Your task to perform on an android device: change keyboard looks Image 0: 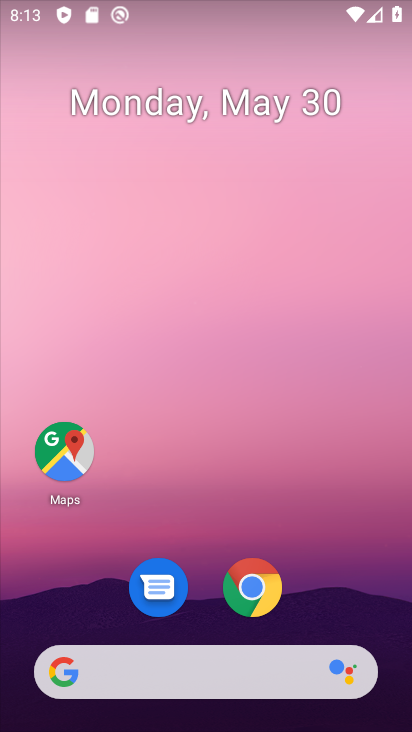
Step 0: drag from (196, 561) to (236, 2)
Your task to perform on an android device: change keyboard looks Image 1: 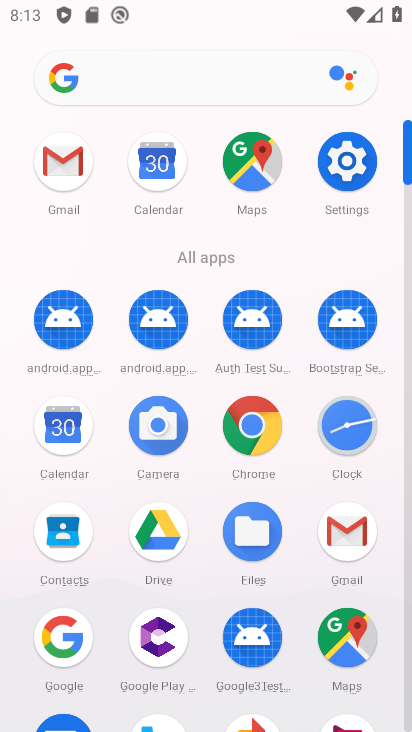
Step 1: click (350, 188)
Your task to perform on an android device: change keyboard looks Image 2: 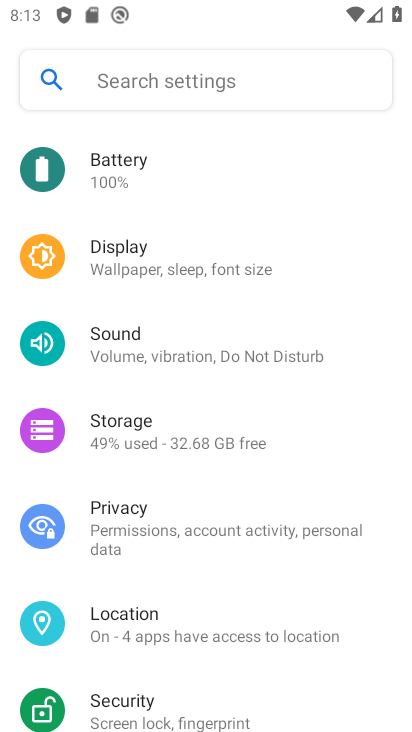
Step 2: drag from (224, 584) to (248, 173)
Your task to perform on an android device: change keyboard looks Image 3: 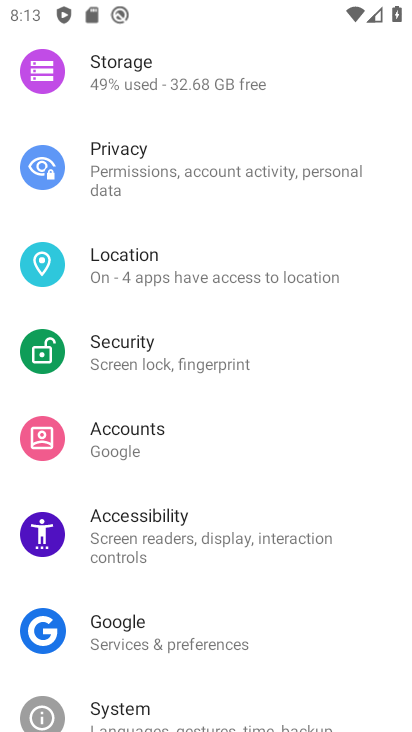
Step 3: drag from (175, 690) to (195, 525)
Your task to perform on an android device: change keyboard looks Image 4: 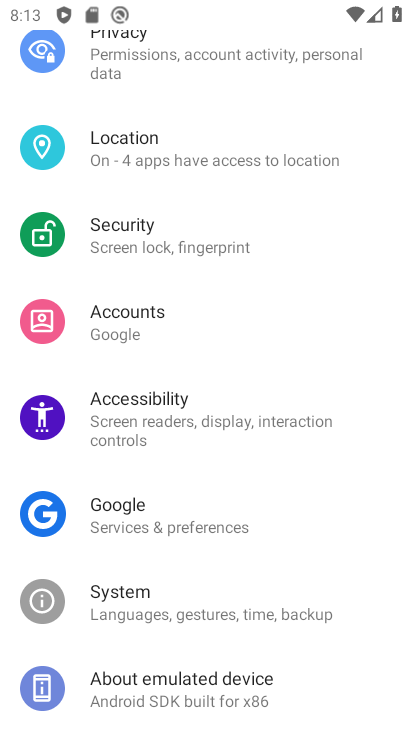
Step 4: click (162, 592)
Your task to perform on an android device: change keyboard looks Image 5: 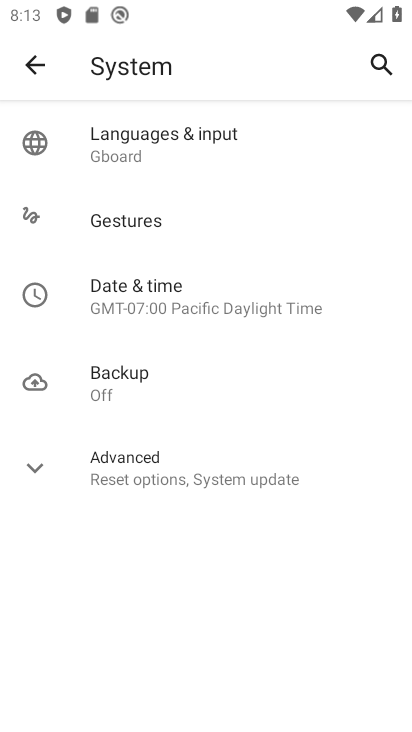
Step 5: click (204, 163)
Your task to perform on an android device: change keyboard looks Image 6: 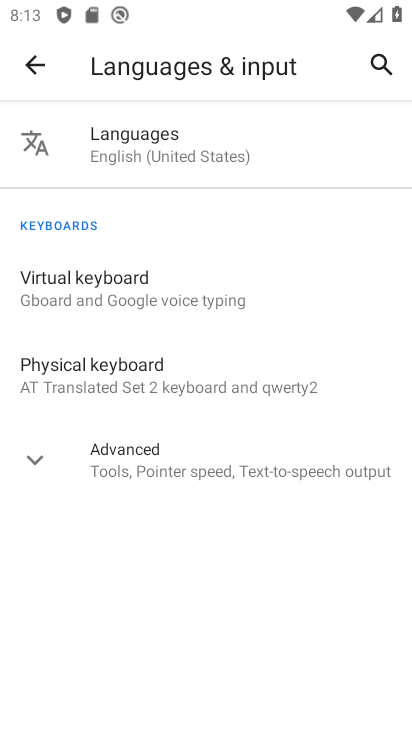
Step 6: click (127, 299)
Your task to perform on an android device: change keyboard looks Image 7: 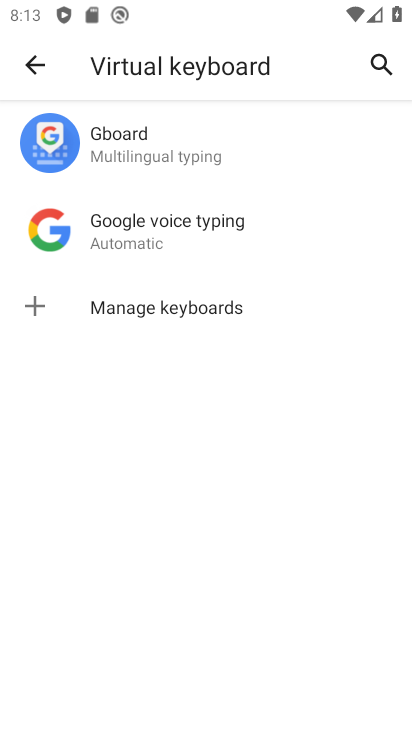
Step 7: click (188, 167)
Your task to perform on an android device: change keyboard looks Image 8: 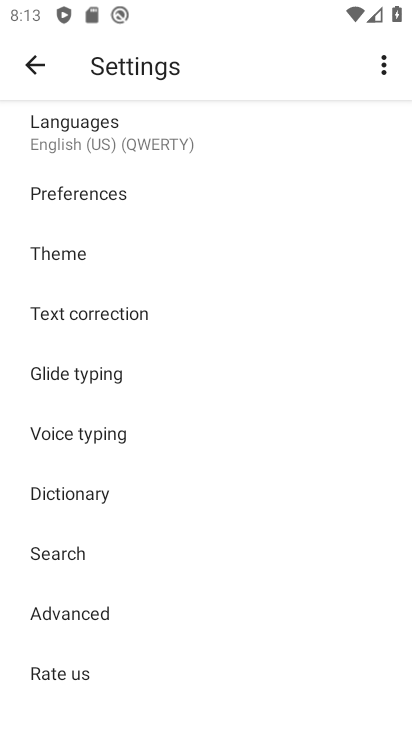
Step 8: click (81, 255)
Your task to perform on an android device: change keyboard looks Image 9: 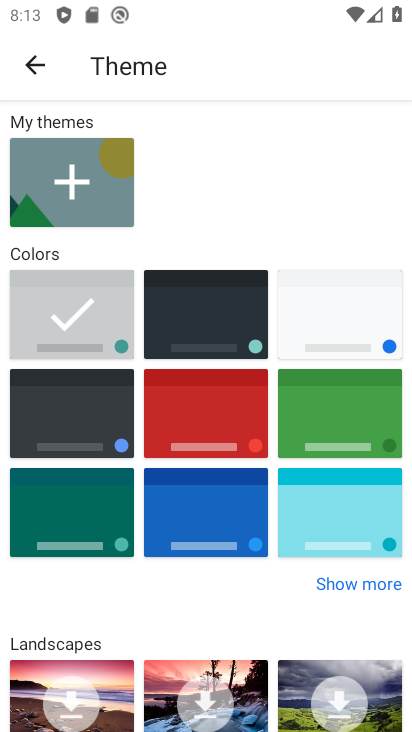
Step 9: click (252, 349)
Your task to perform on an android device: change keyboard looks Image 10: 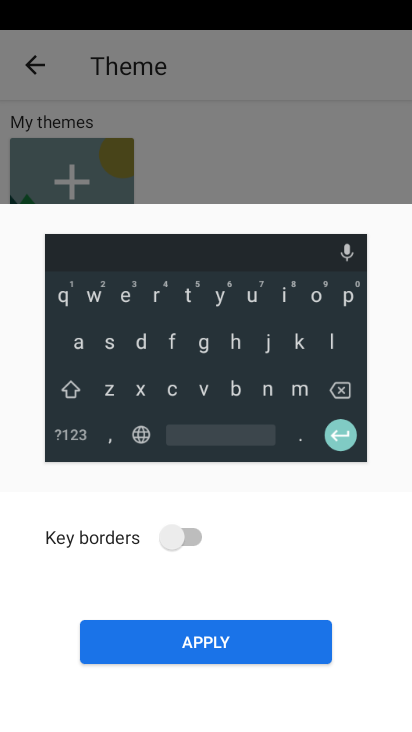
Step 10: click (146, 640)
Your task to perform on an android device: change keyboard looks Image 11: 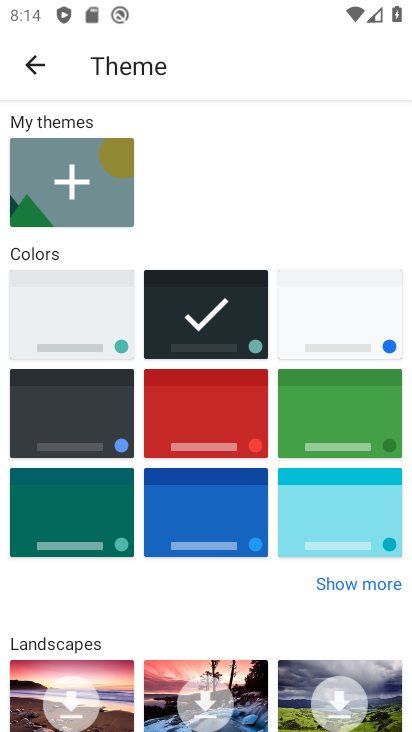
Step 11: task complete